Your task to perform on an android device: open app "YouTube Kids" Image 0: 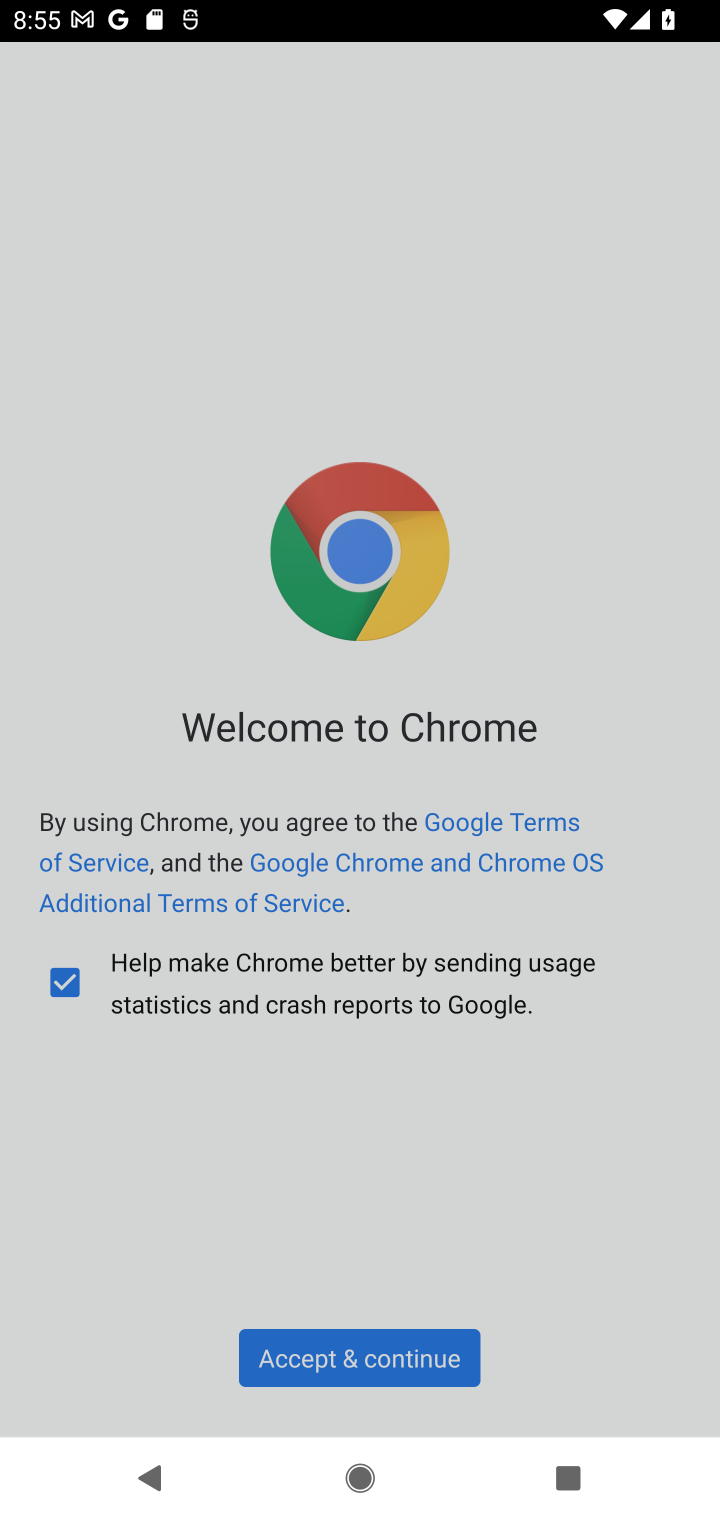
Step 0: press home button
Your task to perform on an android device: open app "YouTube Kids" Image 1: 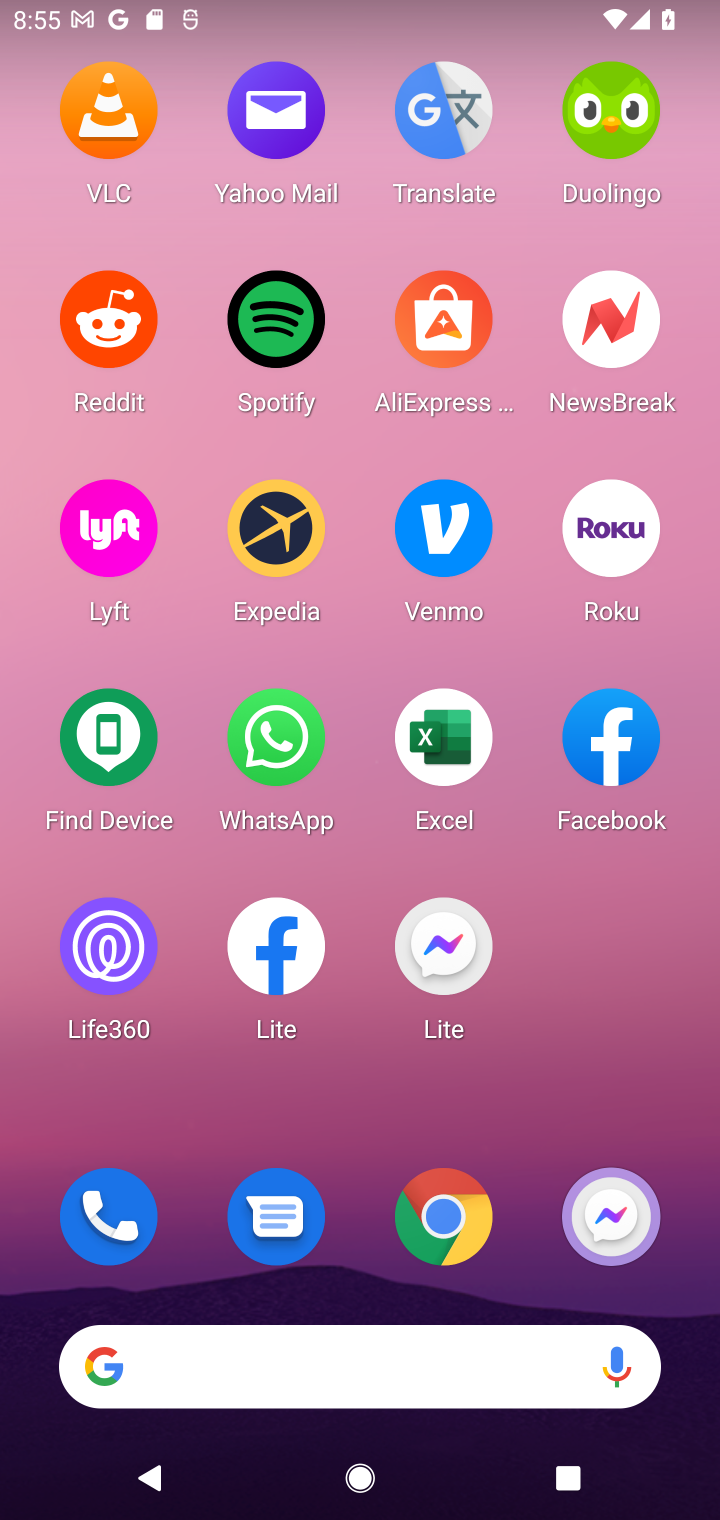
Step 1: press home button
Your task to perform on an android device: open app "YouTube Kids" Image 2: 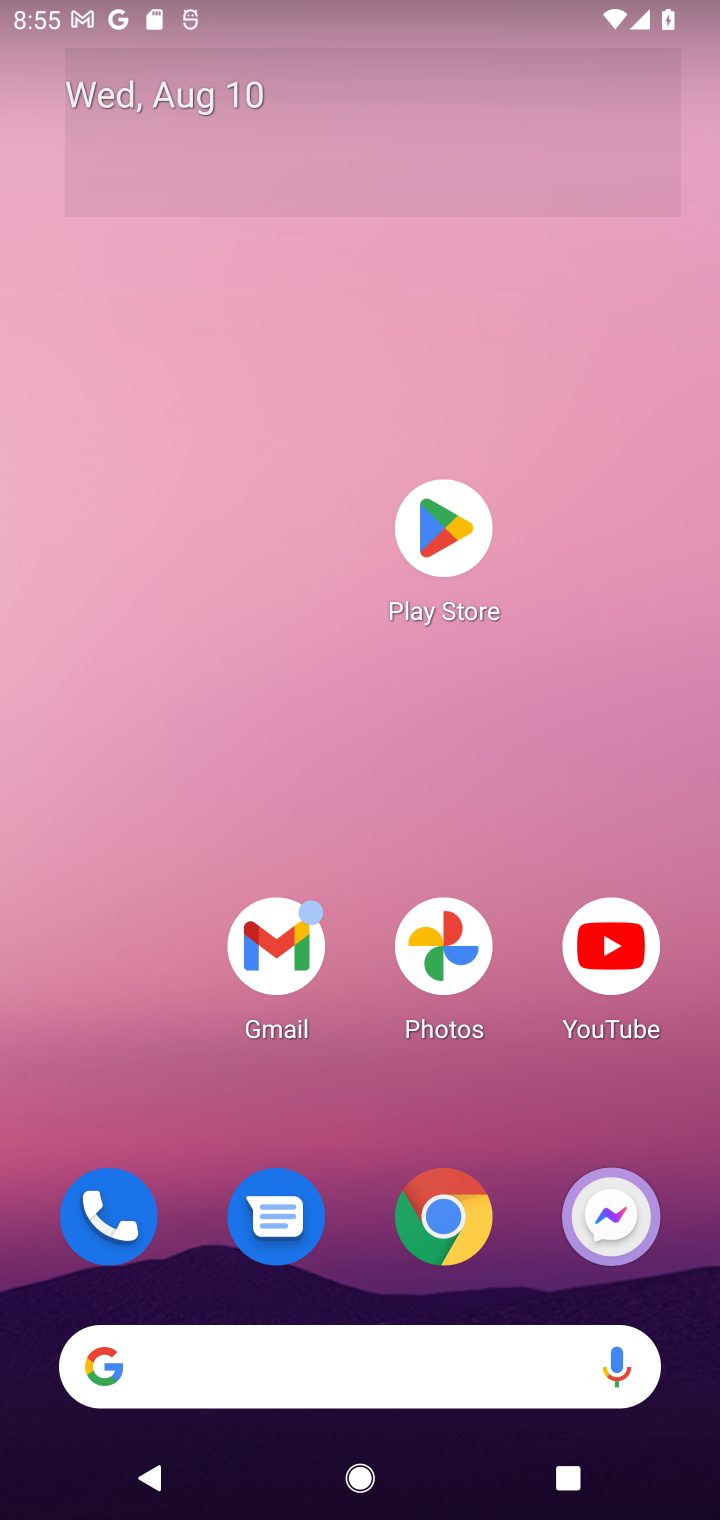
Step 2: click (457, 558)
Your task to perform on an android device: open app "YouTube Kids" Image 3: 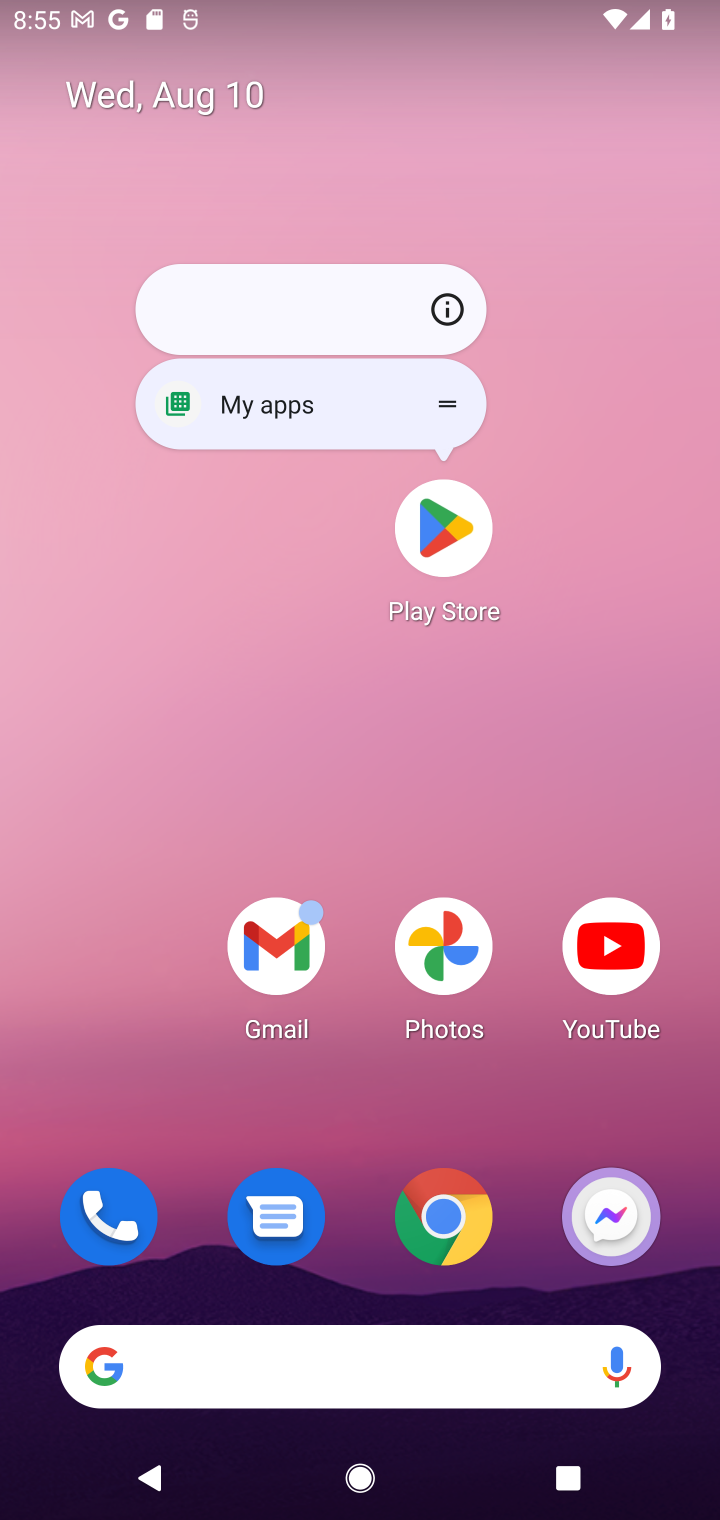
Step 3: click (450, 527)
Your task to perform on an android device: open app "YouTube Kids" Image 4: 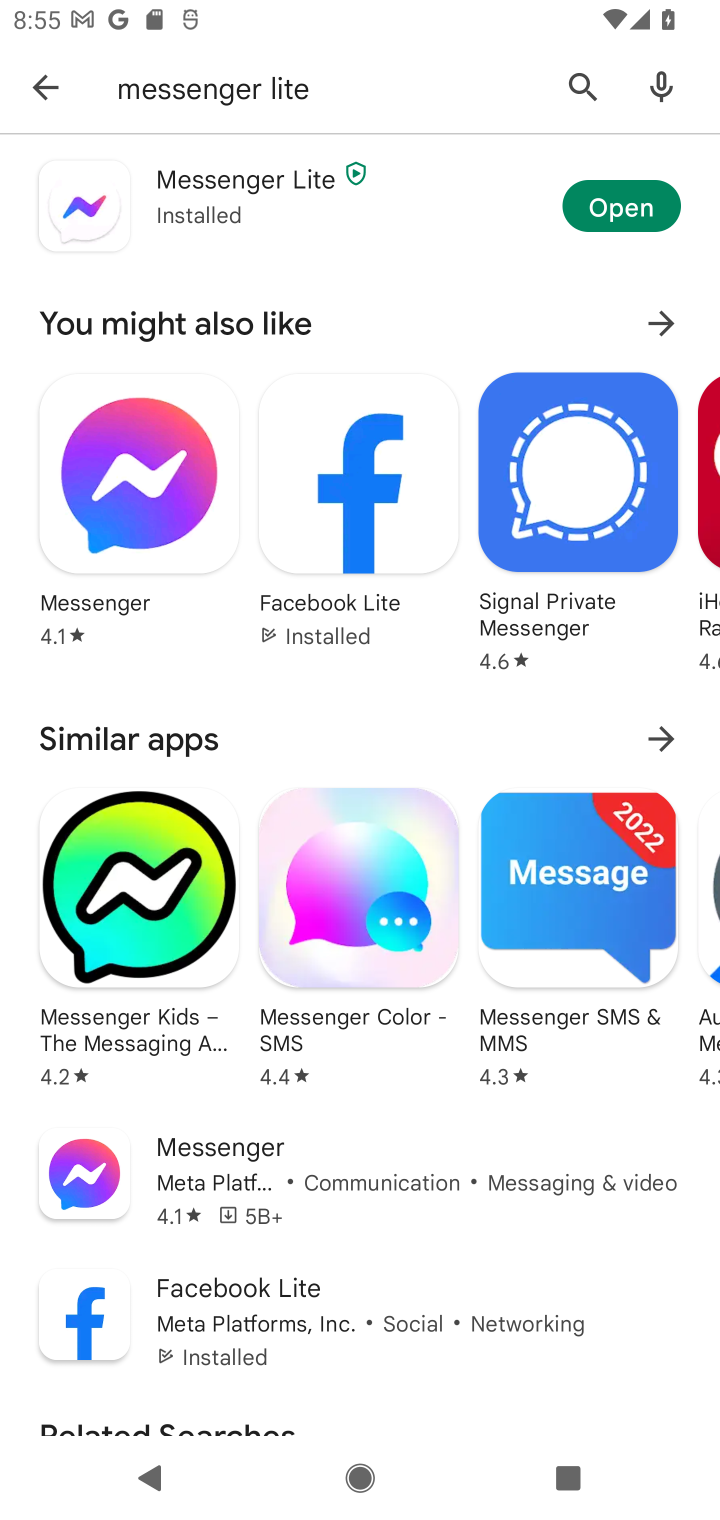
Step 4: click (572, 79)
Your task to perform on an android device: open app "YouTube Kids" Image 5: 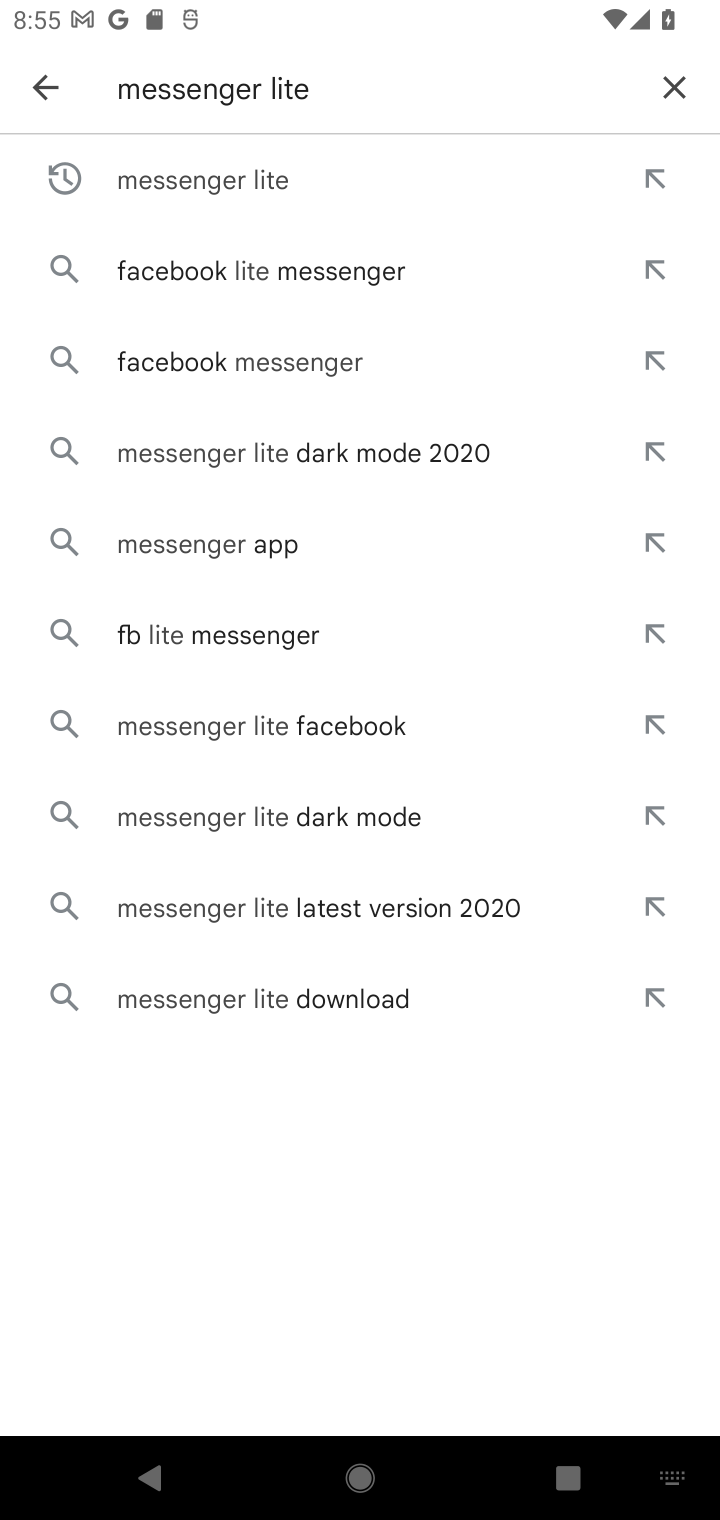
Step 5: click (682, 78)
Your task to perform on an android device: open app "YouTube Kids" Image 6: 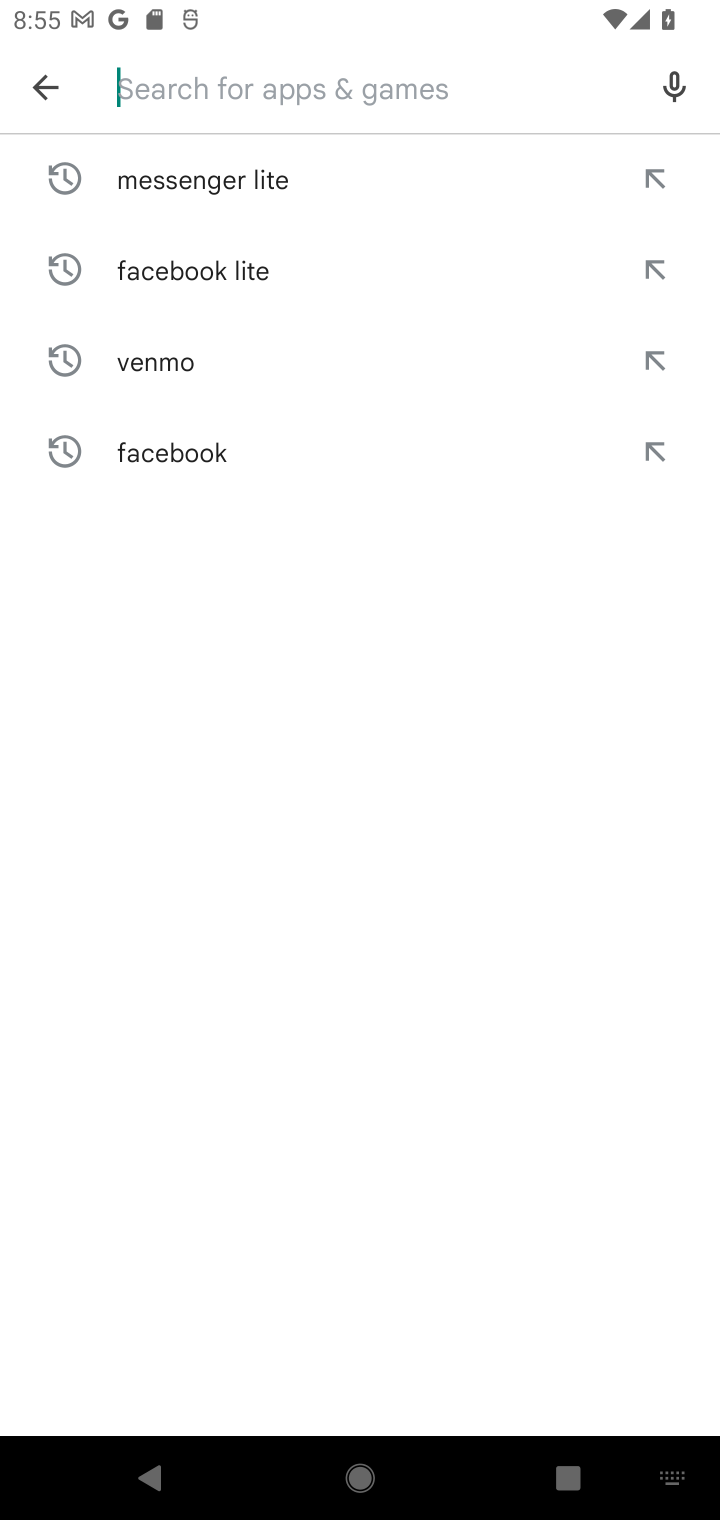
Step 6: type "YouTube Kids"
Your task to perform on an android device: open app "YouTube Kids" Image 7: 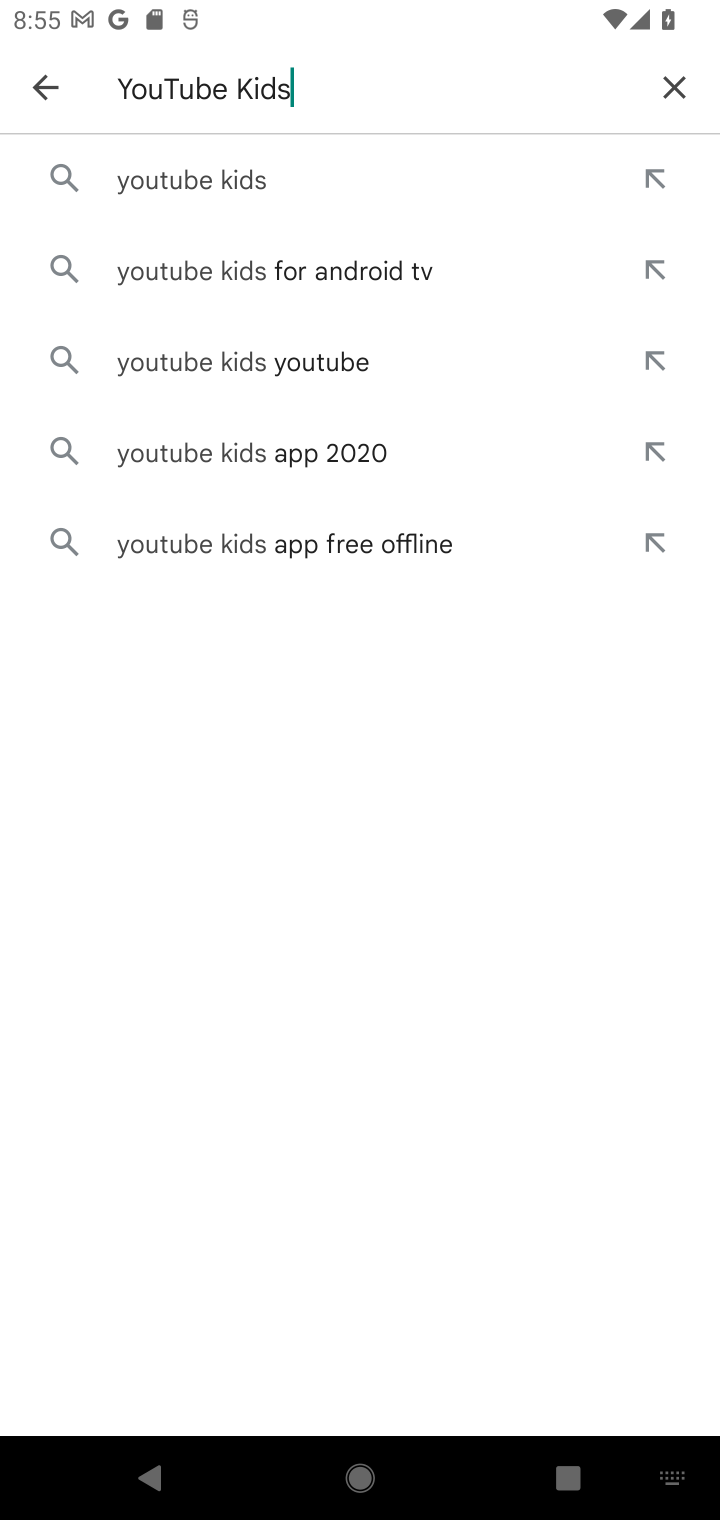
Step 7: click (225, 186)
Your task to perform on an android device: open app "YouTube Kids" Image 8: 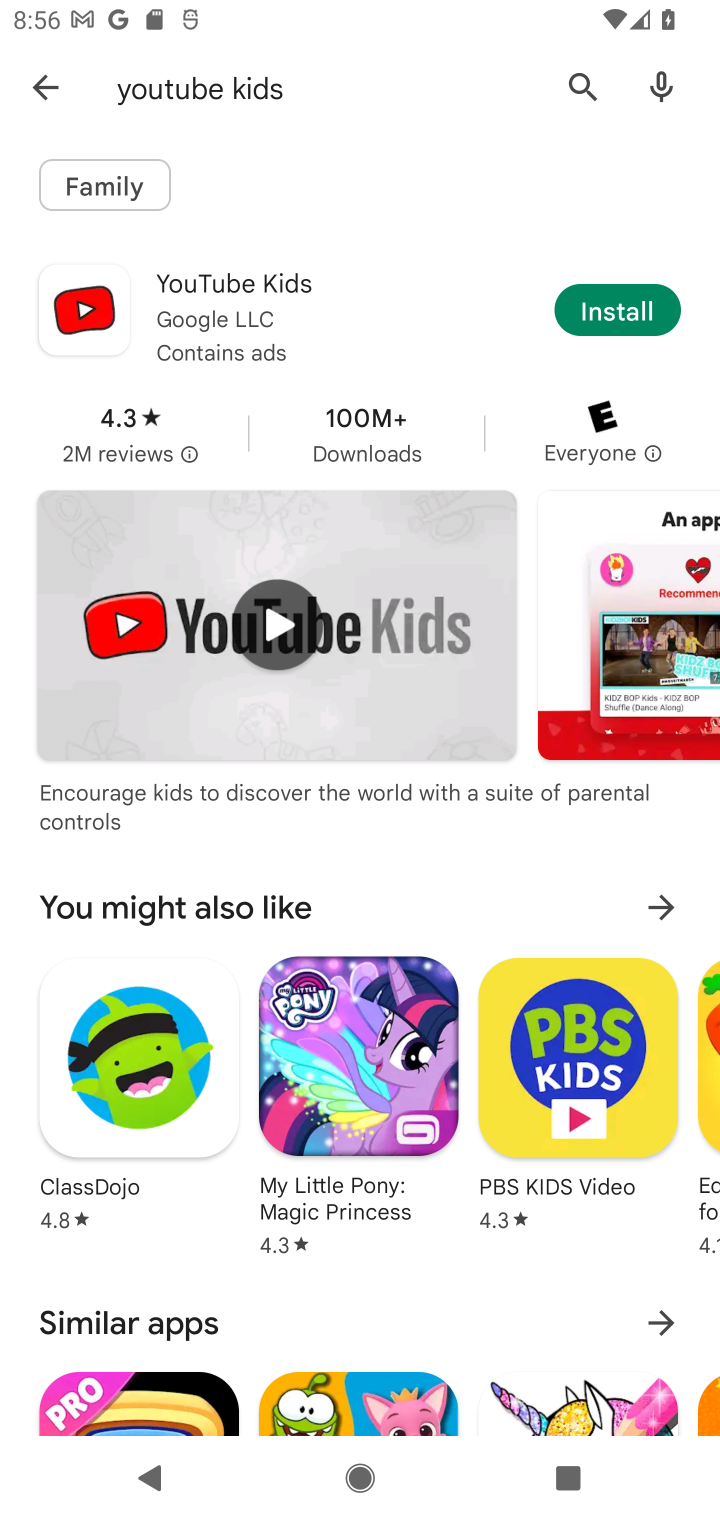
Step 8: task complete